Your task to perform on an android device: turn on airplane mode Image 0: 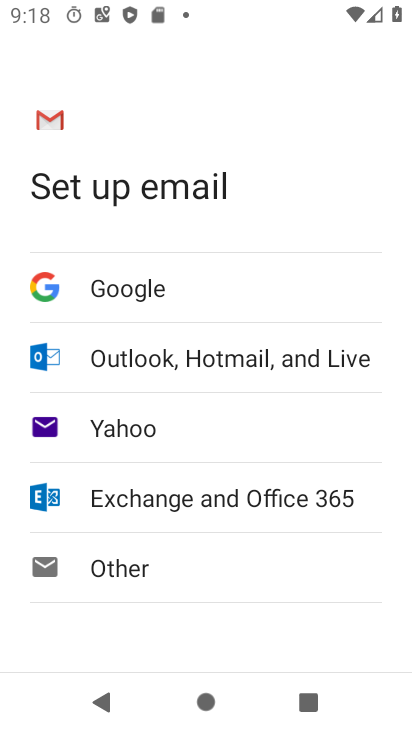
Step 0: press home button
Your task to perform on an android device: turn on airplane mode Image 1: 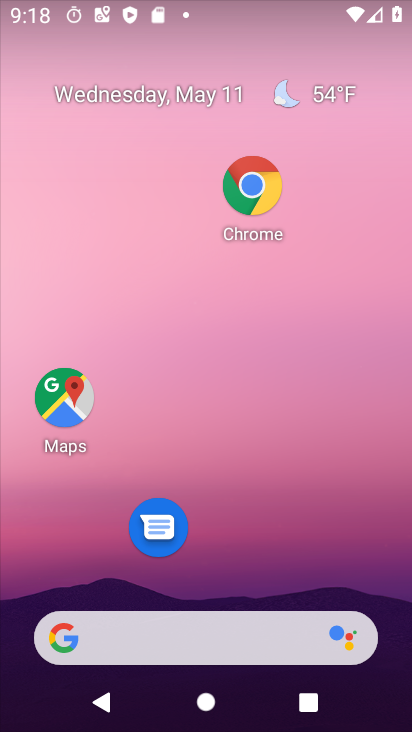
Step 1: drag from (257, 553) to (233, 17)
Your task to perform on an android device: turn on airplane mode Image 2: 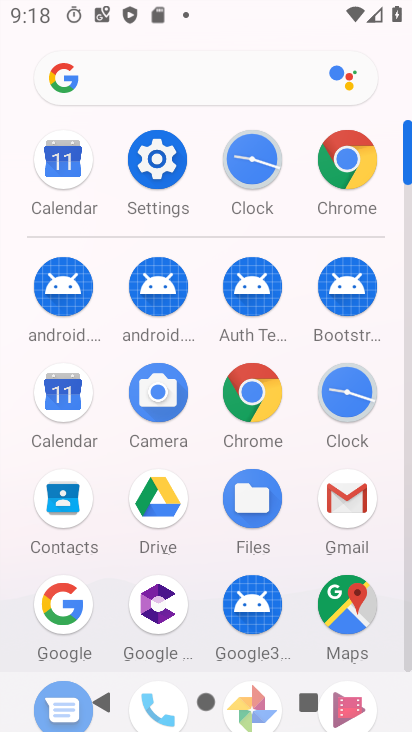
Step 2: click (158, 154)
Your task to perform on an android device: turn on airplane mode Image 3: 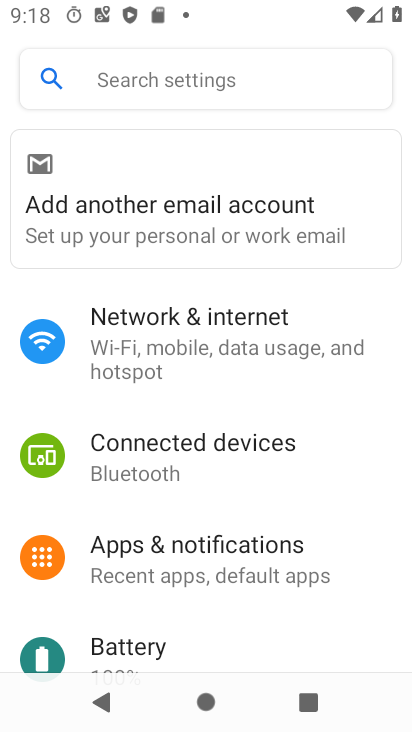
Step 3: click (223, 331)
Your task to perform on an android device: turn on airplane mode Image 4: 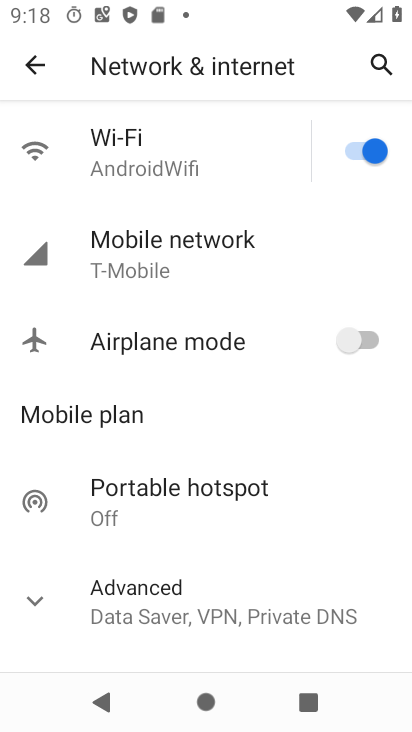
Step 4: click (353, 349)
Your task to perform on an android device: turn on airplane mode Image 5: 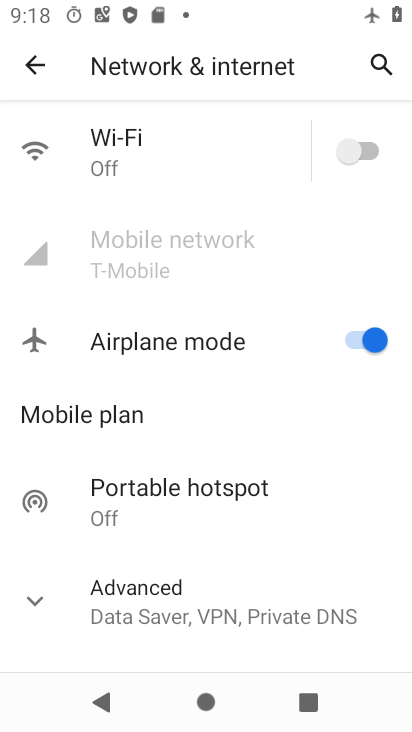
Step 5: task complete